Your task to perform on an android device: Search for razer blackwidow on walmart.com, select the first entry, and add it to the cart. Image 0: 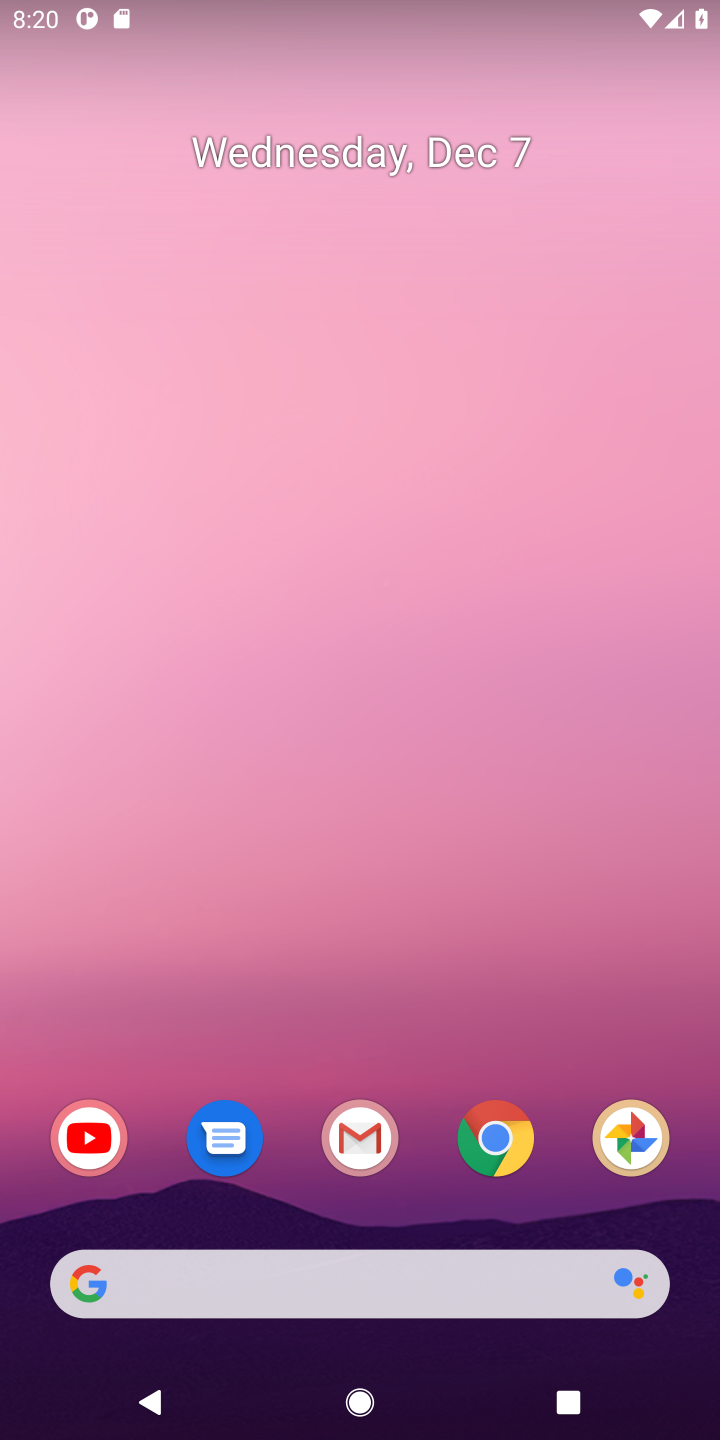
Step 0: press home button
Your task to perform on an android device: Search for razer blackwidow on walmart.com, select the first entry, and add it to the cart. Image 1: 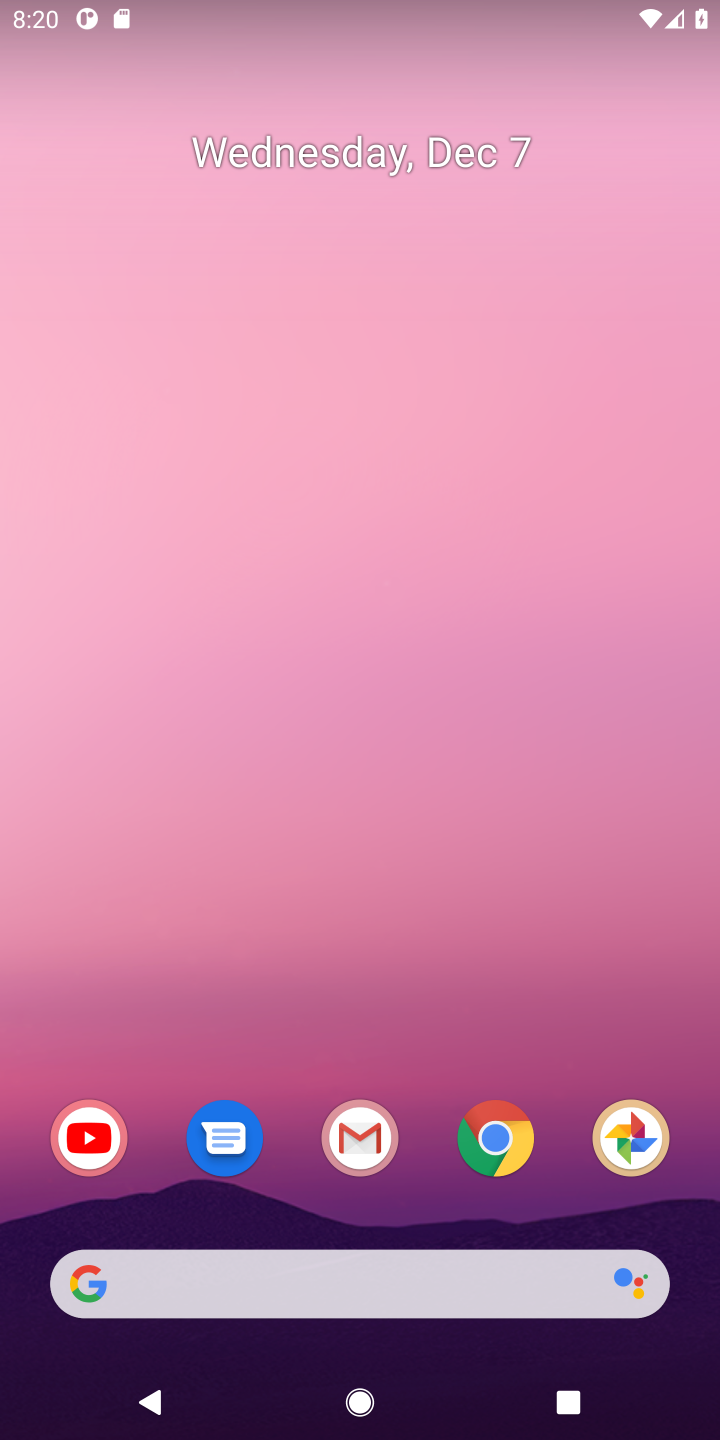
Step 1: click (151, 1274)
Your task to perform on an android device: Search for razer blackwidow on walmart.com, select the first entry, and add it to the cart. Image 2: 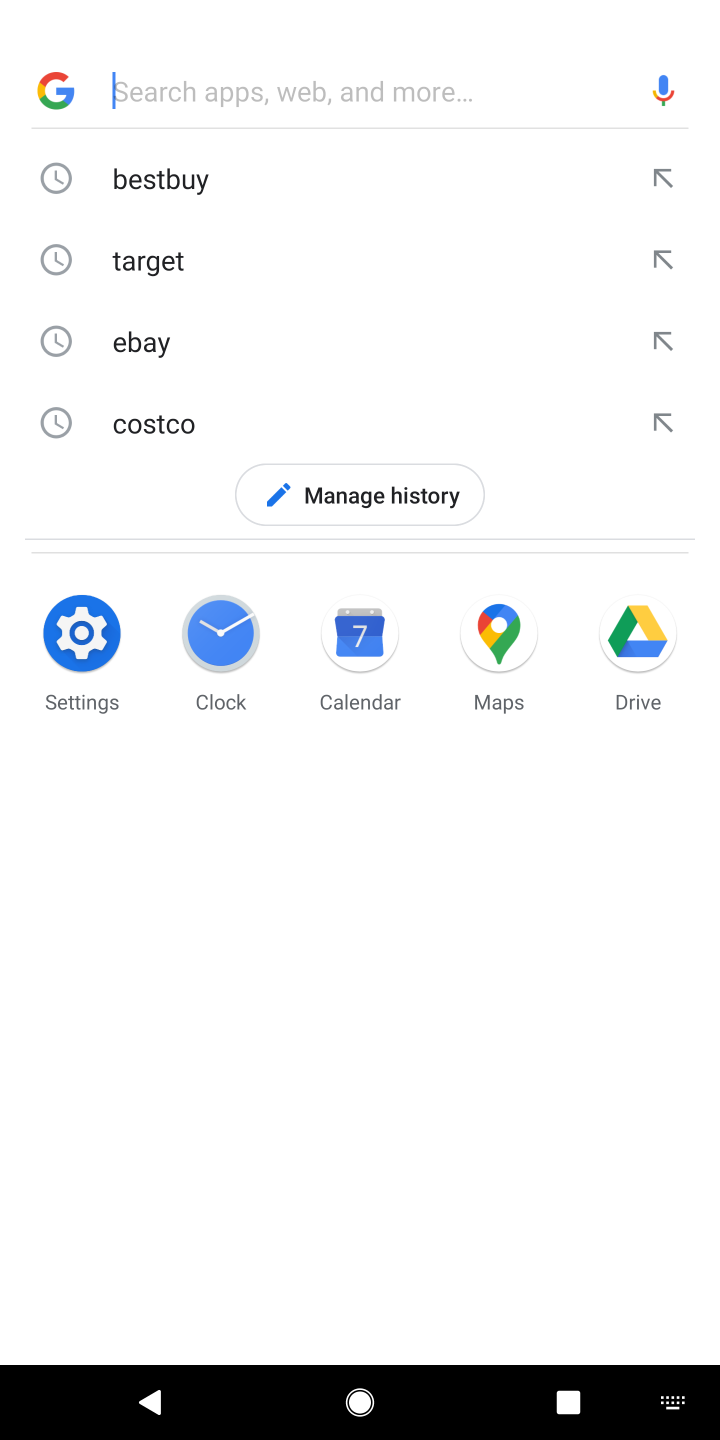
Step 2: type "walmart.com"
Your task to perform on an android device: Search for razer blackwidow on walmart.com, select the first entry, and add it to the cart. Image 3: 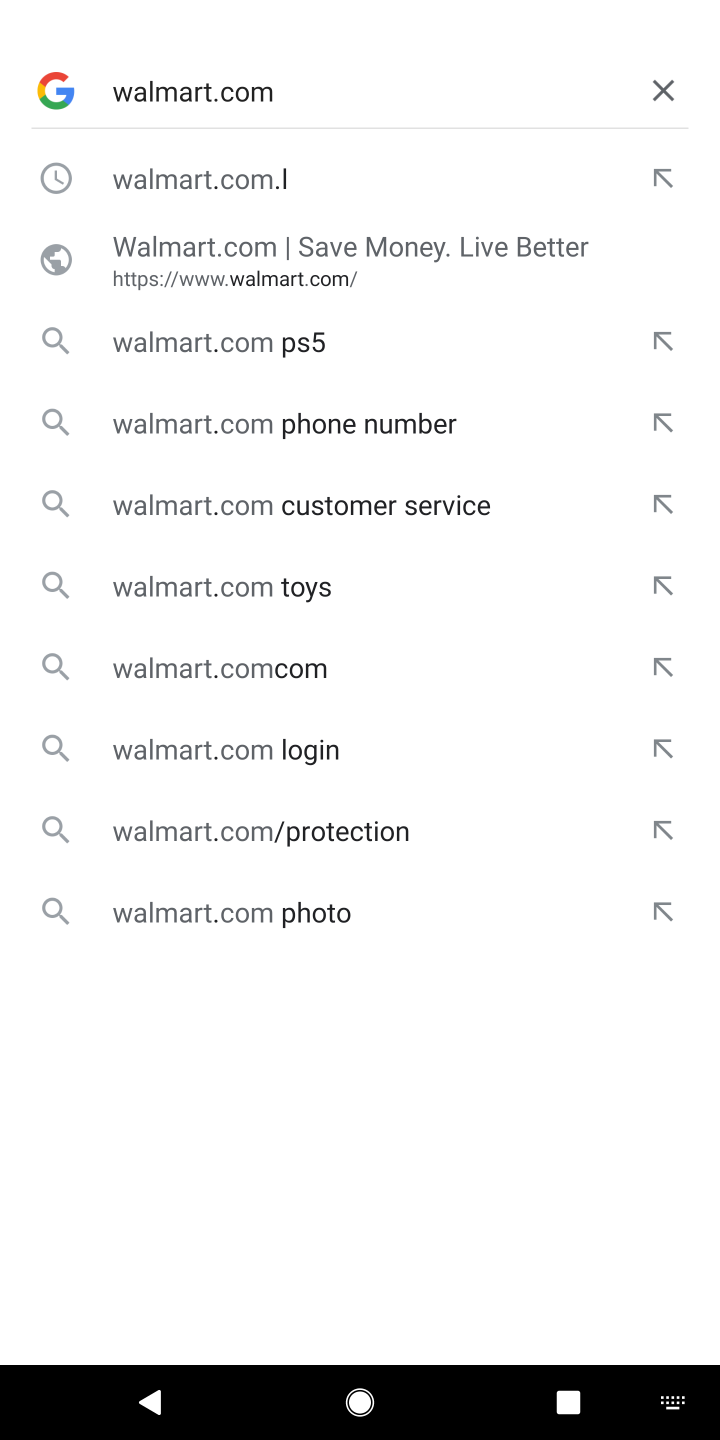
Step 3: press enter
Your task to perform on an android device: Search for razer blackwidow on walmart.com, select the first entry, and add it to the cart. Image 4: 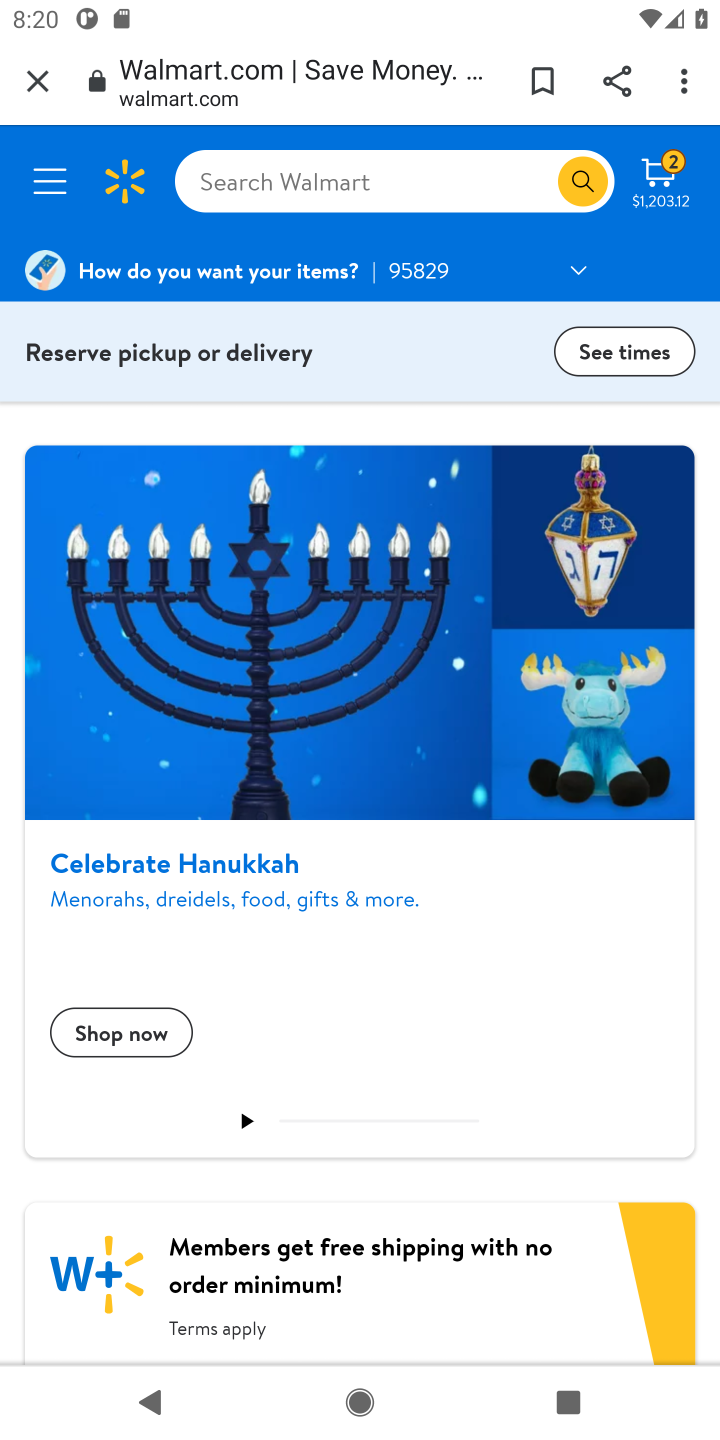
Step 4: click (251, 185)
Your task to perform on an android device: Search for razer blackwidow on walmart.com, select the first entry, and add it to the cart. Image 5: 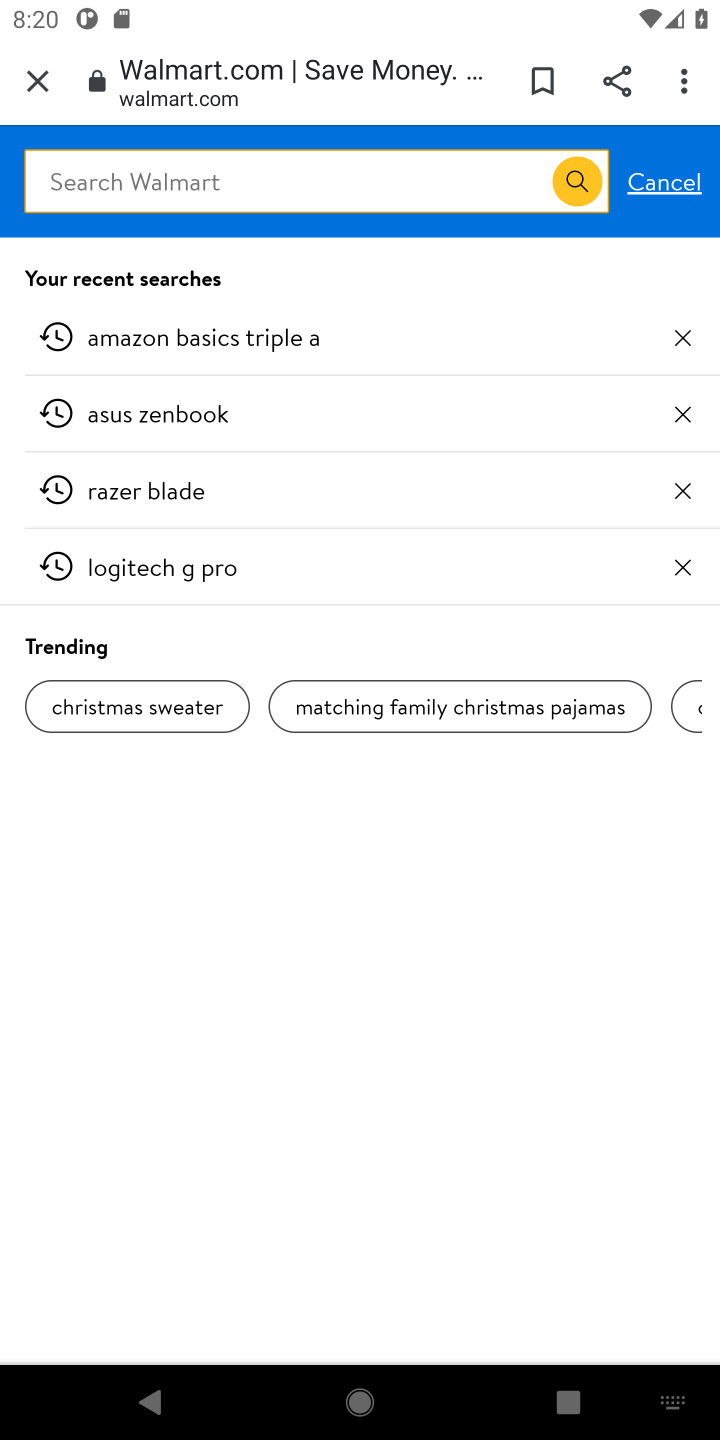
Step 5: type "razer blackwidow "
Your task to perform on an android device: Search for razer blackwidow on walmart.com, select the first entry, and add it to the cart. Image 6: 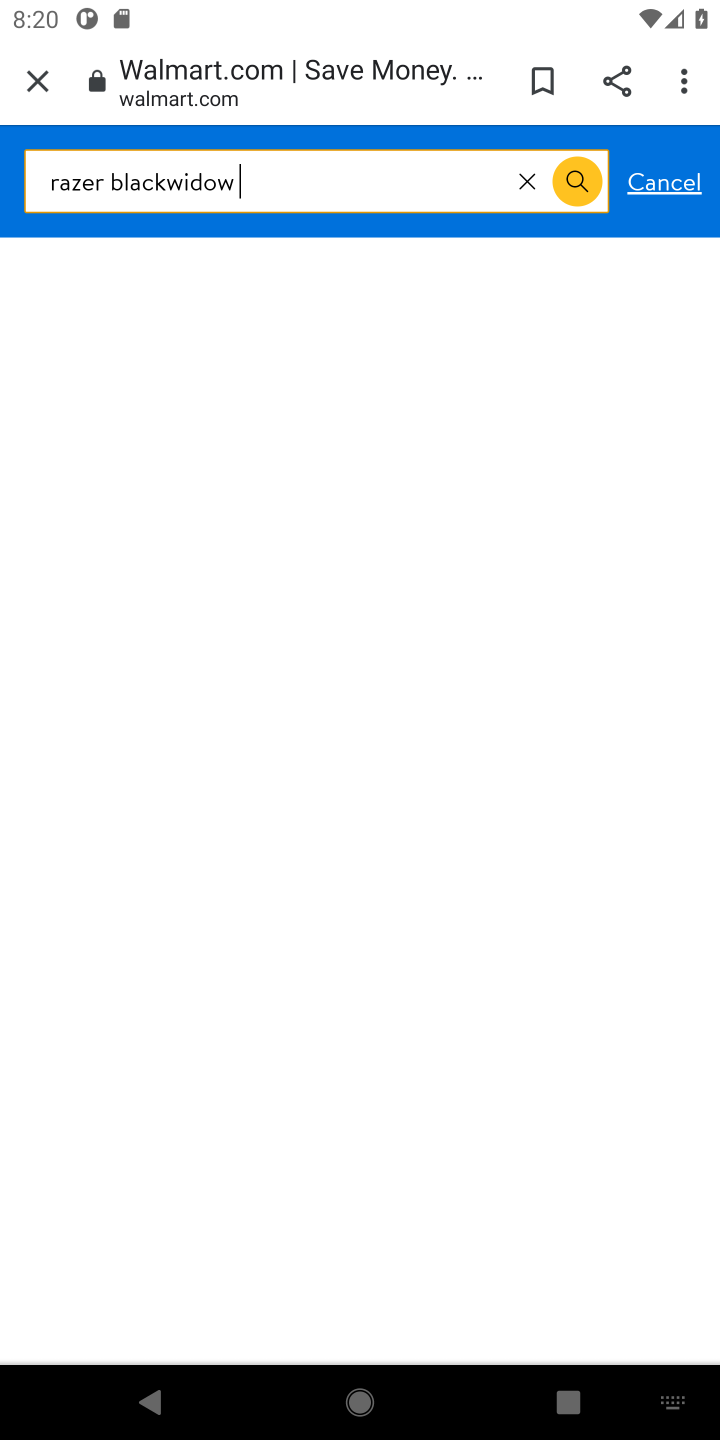
Step 6: press enter
Your task to perform on an android device: Search for razer blackwidow on walmart.com, select the first entry, and add it to the cart. Image 7: 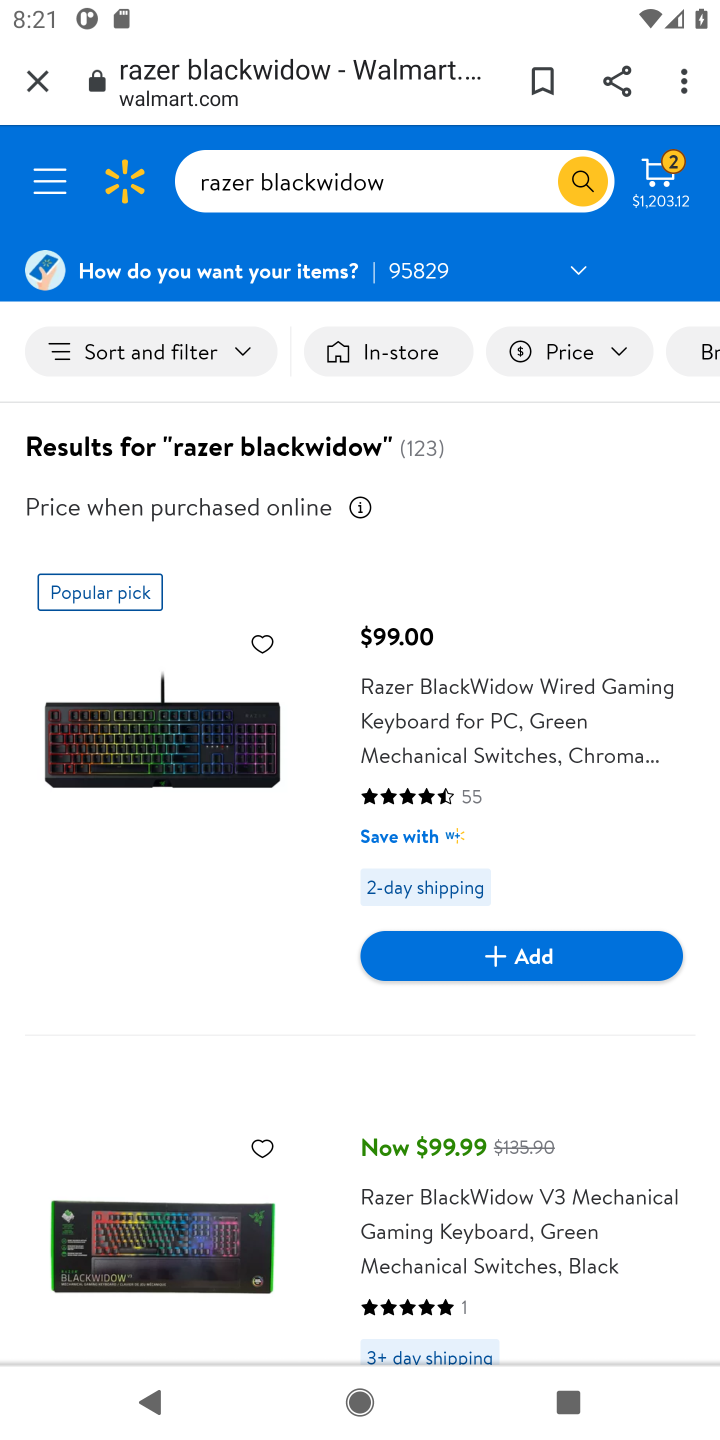
Step 7: click (504, 954)
Your task to perform on an android device: Search for razer blackwidow on walmart.com, select the first entry, and add it to the cart. Image 8: 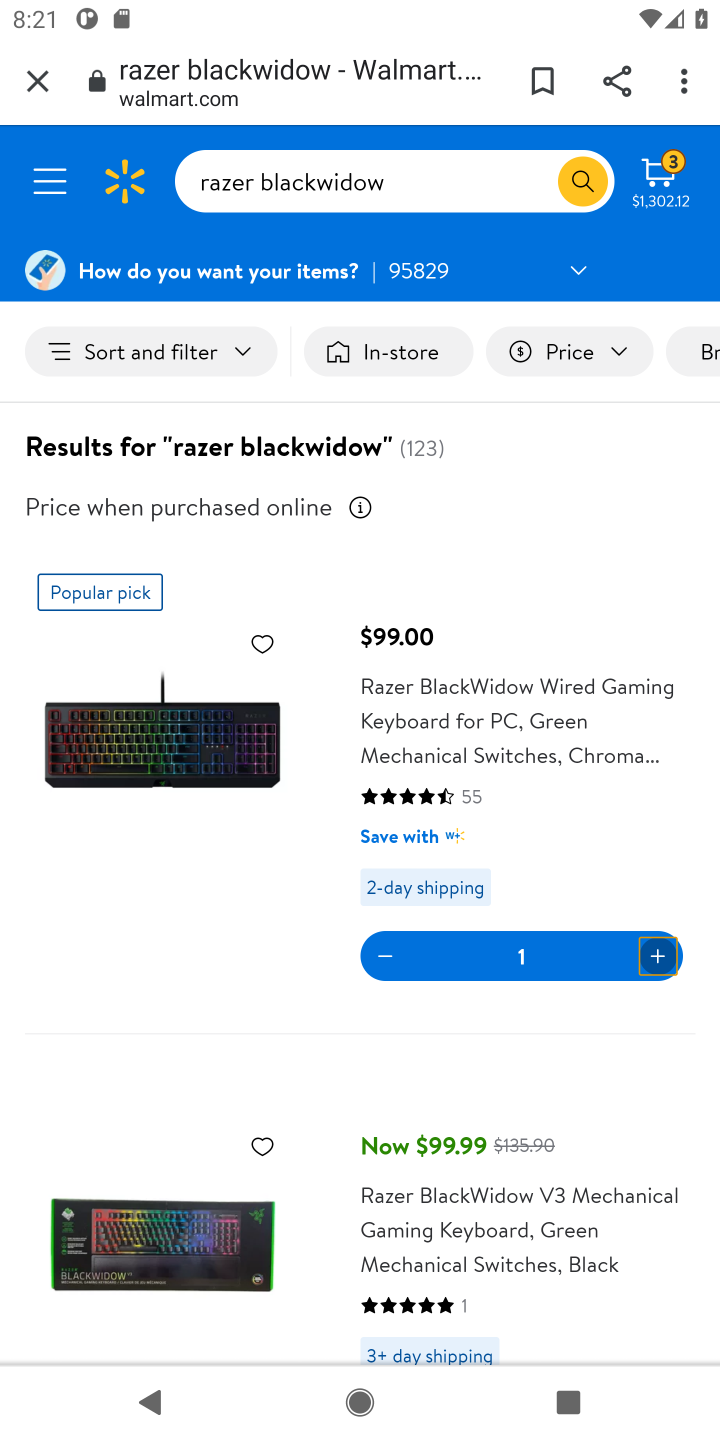
Step 8: task complete